Your task to perform on an android device: empty trash in the gmail app Image 0: 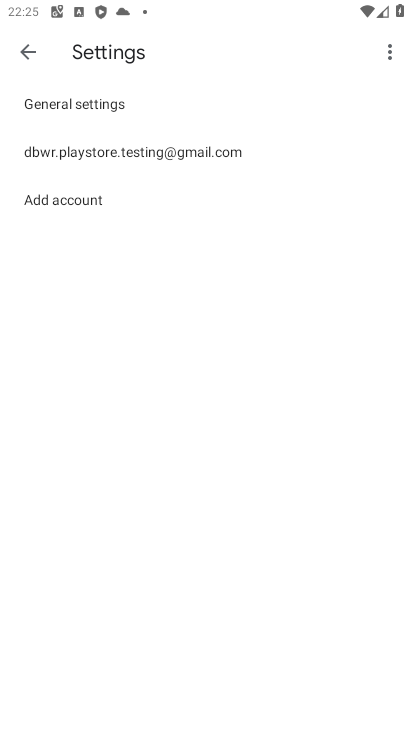
Step 0: click (19, 54)
Your task to perform on an android device: empty trash in the gmail app Image 1: 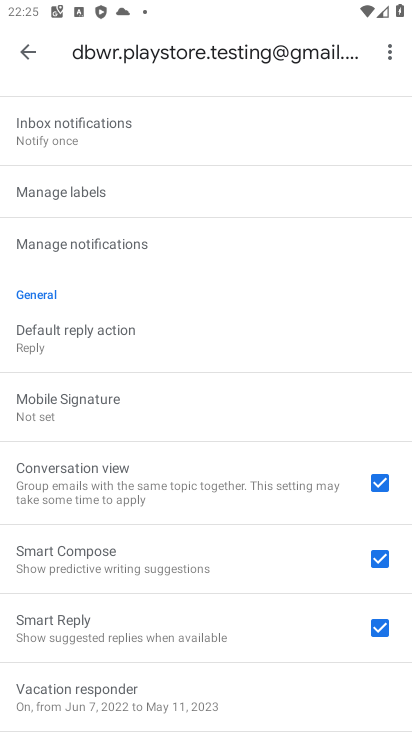
Step 1: click (21, 55)
Your task to perform on an android device: empty trash in the gmail app Image 2: 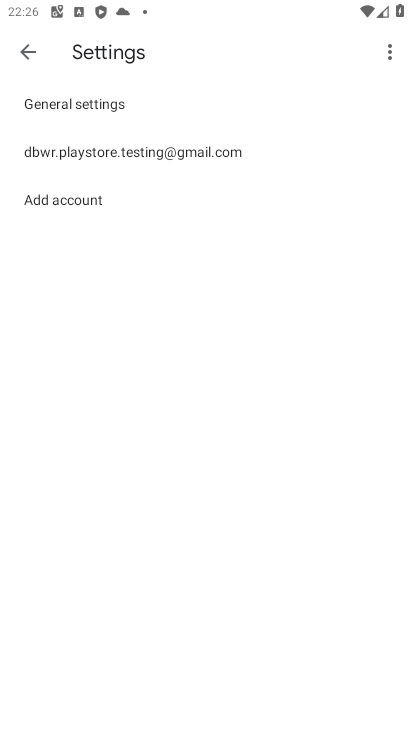
Step 2: click (20, 49)
Your task to perform on an android device: empty trash in the gmail app Image 3: 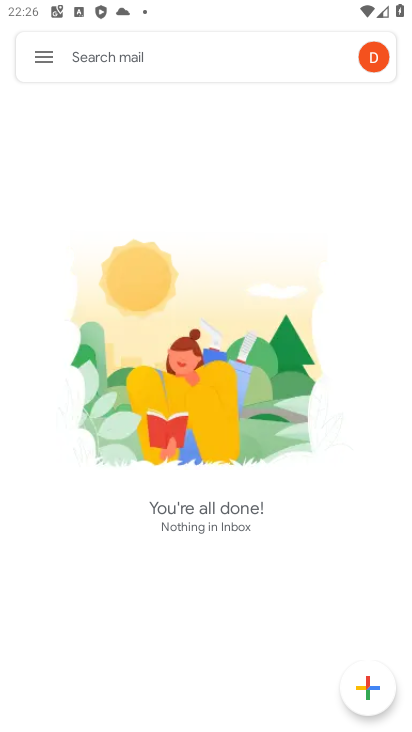
Step 3: click (35, 54)
Your task to perform on an android device: empty trash in the gmail app Image 4: 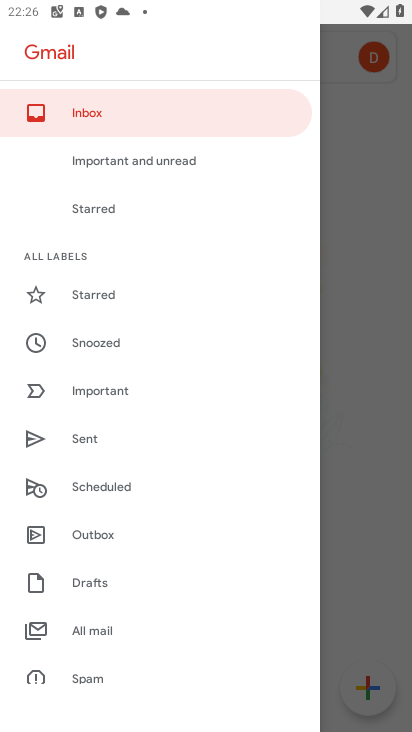
Step 4: drag from (154, 662) to (129, 328)
Your task to perform on an android device: empty trash in the gmail app Image 5: 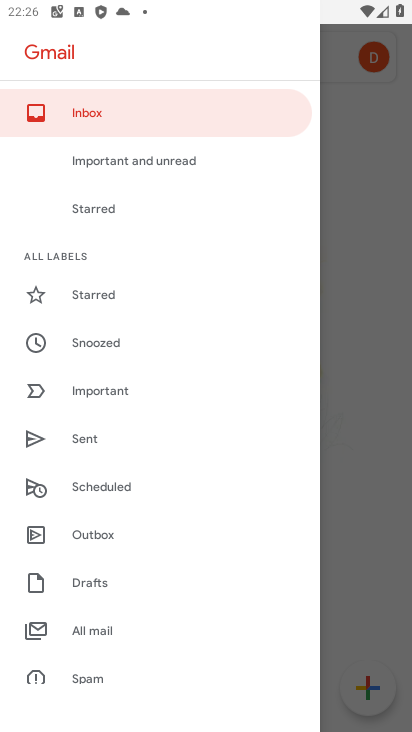
Step 5: drag from (153, 663) to (141, 408)
Your task to perform on an android device: empty trash in the gmail app Image 6: 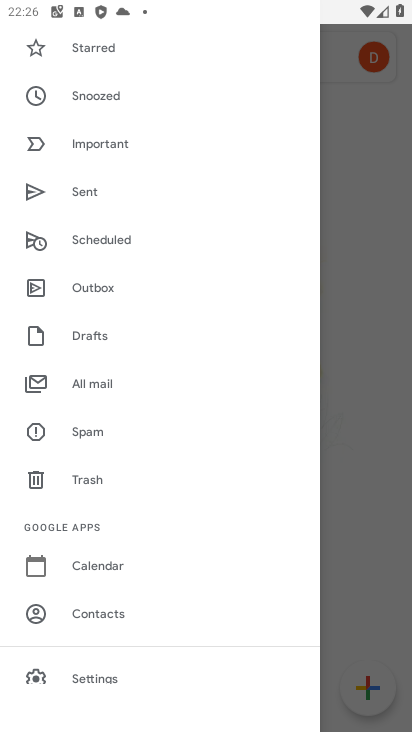
Step 6: click (79, 471)
Your task to perform on an android device: empty trash in the gmail app Image 7: 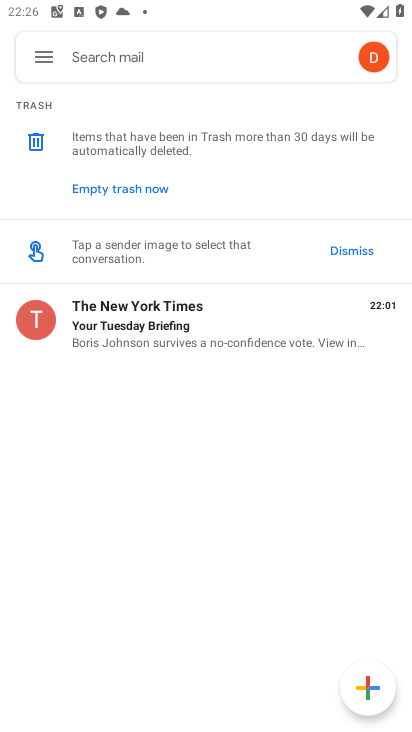
Step 7: click (92, 189)
Your task to perform on an android device: empty trash in the gmail app Image 8: 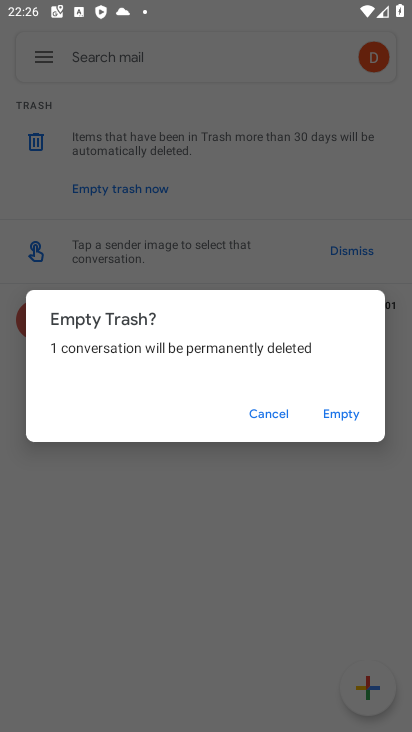
Step 8: click (326, 410)
Your task to perform on an android device: empty trash in the gmail app Image 9: 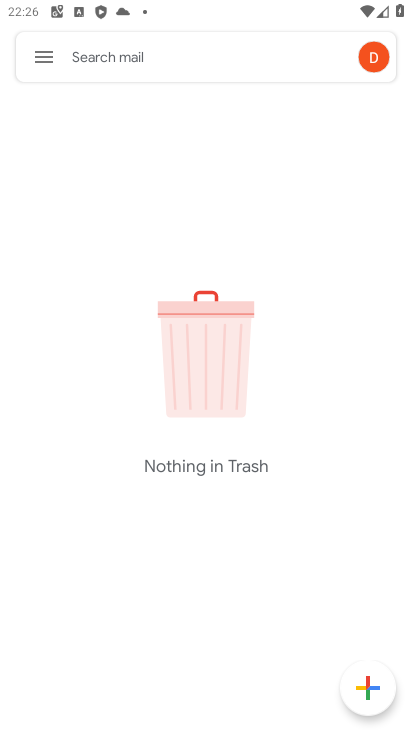
Step 9: task complete